Your task to perform on an android device: all mails in gmail Image 0: 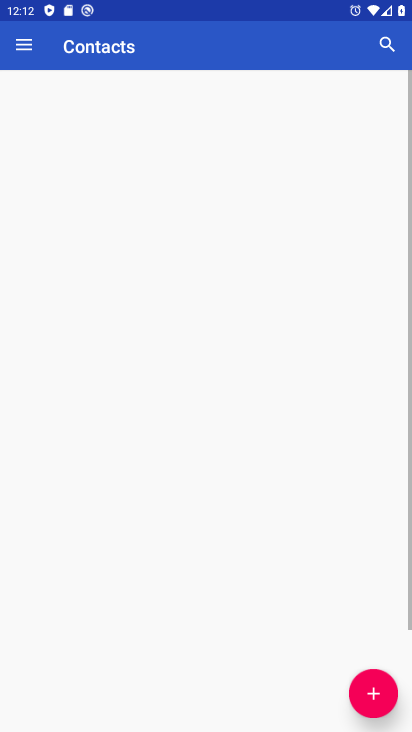
Step 0: drag from (237, 695) to (409, 68)
Your task to perform on an android device: all mails in gmail Image 1: 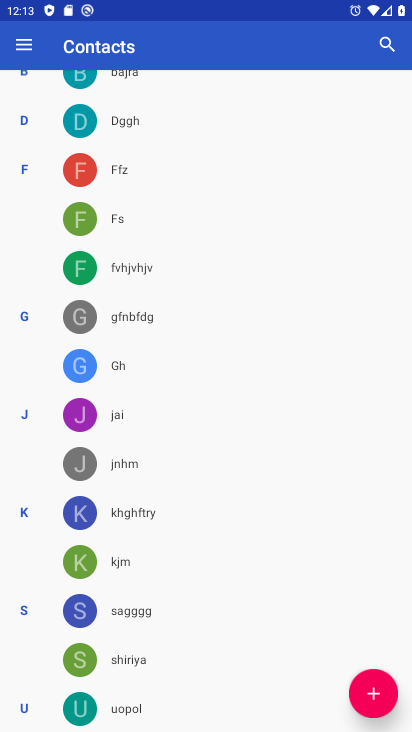
Step 1: press back button
Your task to perform on an android device: all mails in gmail Image 2: 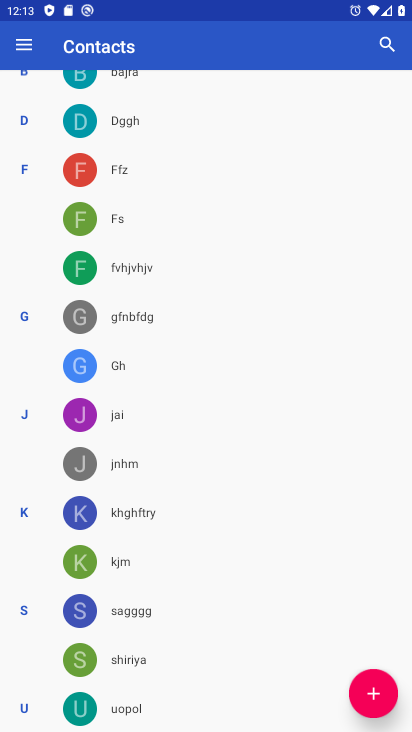
Step 2: press back button
Your task to perform on an android device: all mails in gmail Image 3: 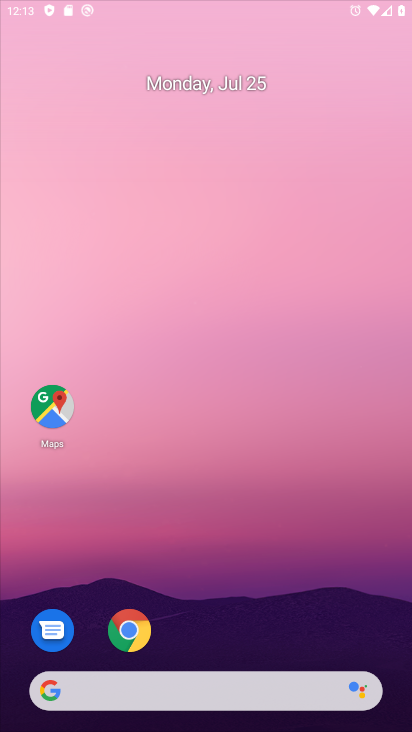
Step 3: press back button
Your task to perform on an android device: all mails in gmail Image 4: 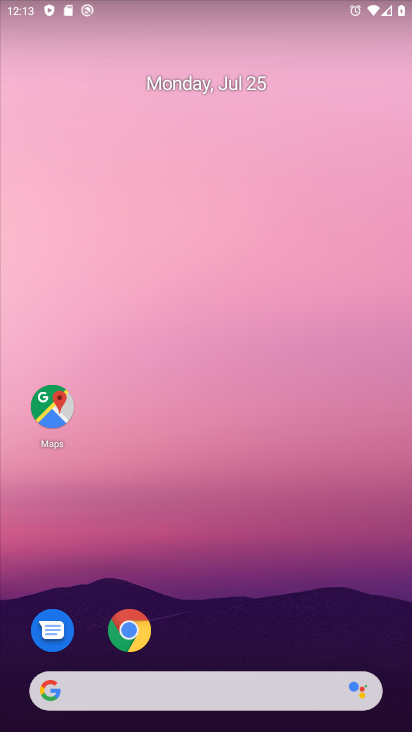
Step 4: drag from (256, 545) to (247, 102)
Your task to perform on an android device: all mails in gmail Image 5: 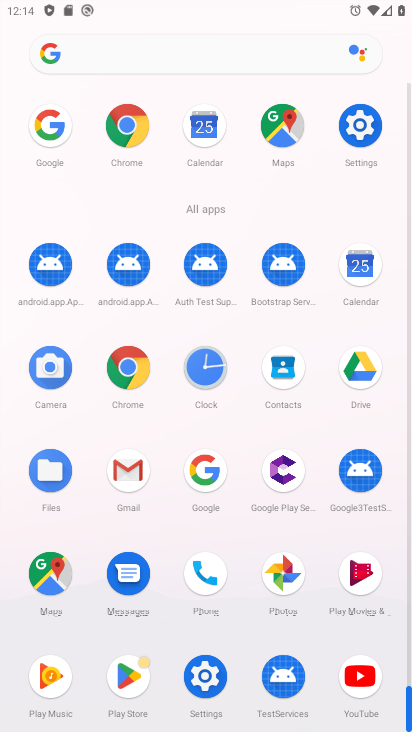
Step 5: click (141, 475)
Your task to perform on an android device: all mails in gmail Image 6: 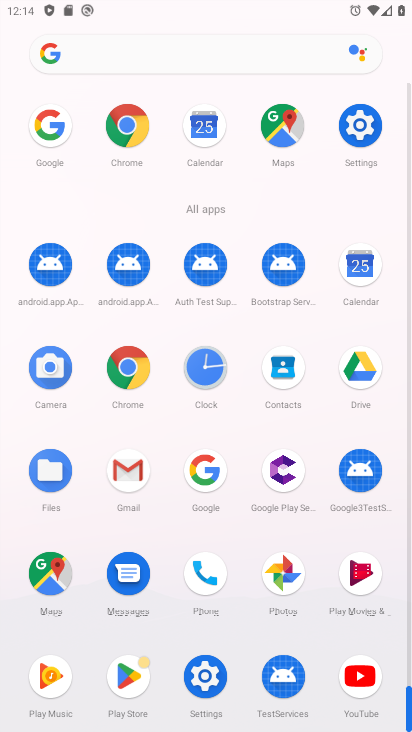
Step 6: click (129, 459)
Your task to perform on an android device: all mails in gmail Image 7: 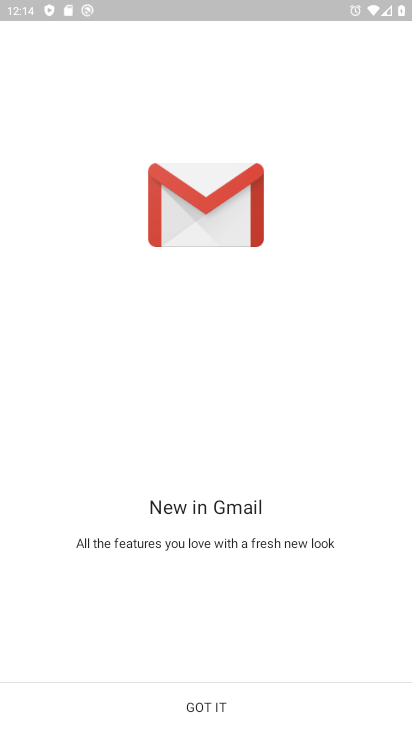
Step 7: click (209, 711)
Your task to perform on an android device: all mails in gmail Image 8: 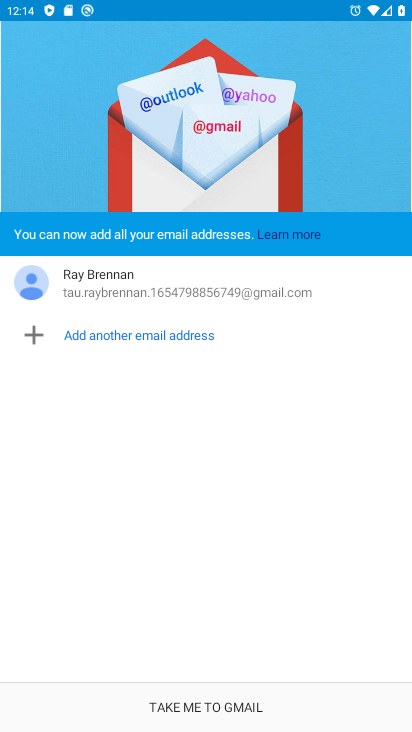
Step 8: click (198, 705)
Your task to perform on an android device: all mails in gmail Image 9: 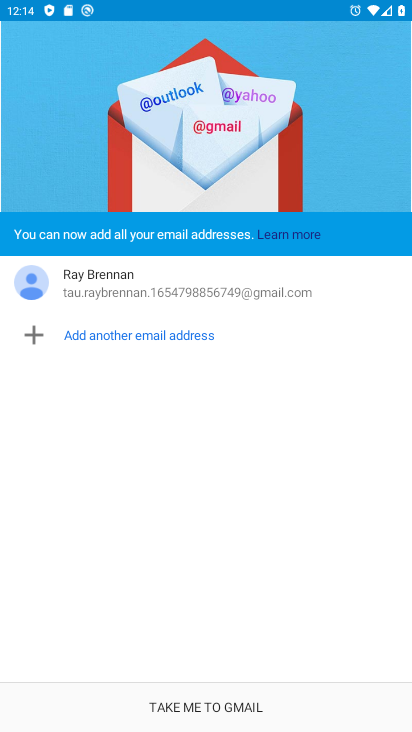
Step 9: click (199, 706)
Your task to perform on an android device: all mails in gmail Image 10: 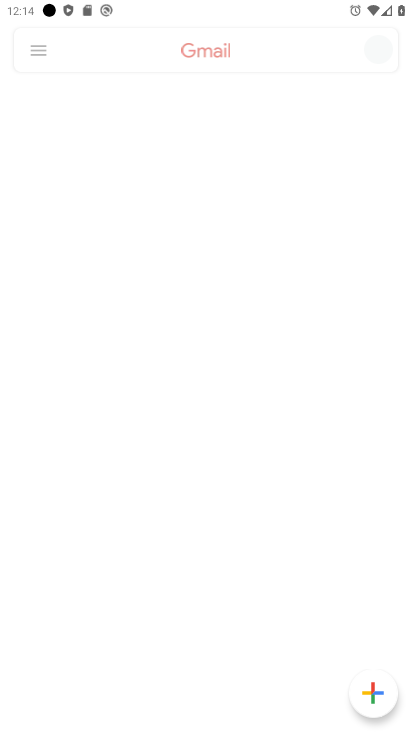
Step 10: click (207, 708)
Your task to perform on an android device: all mails in gmail Image 11: 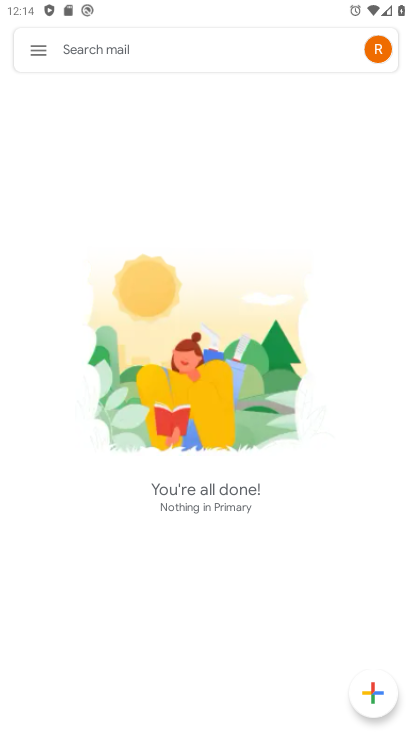
Step 11: click (36, 51)
Your task to perform on an android device: all mails in gmail Image 12: 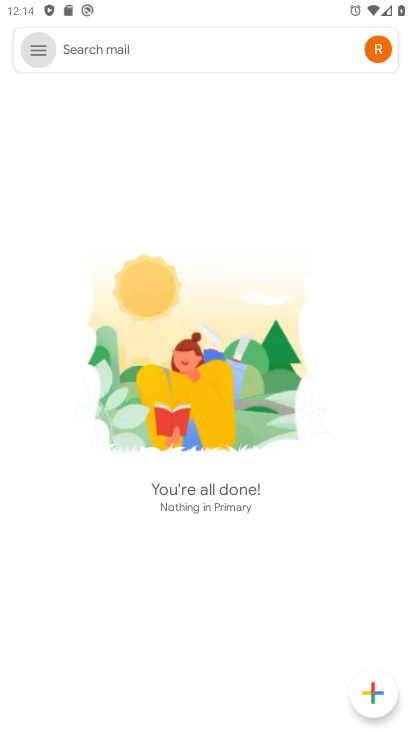
Step 12: click (35, 51)
Your task to perform on an android device: all mails in gmail Image 13: 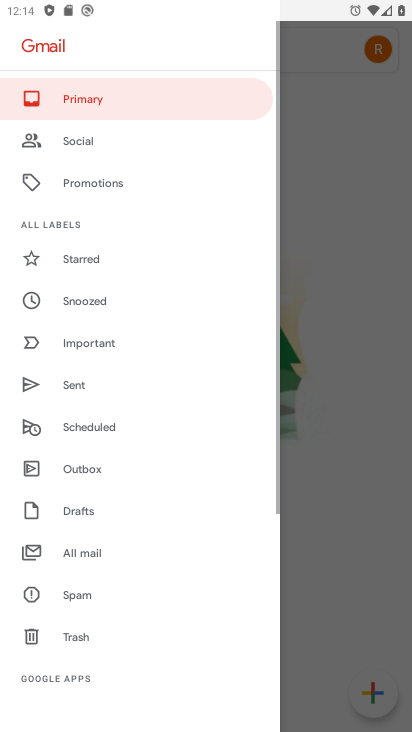
Step 13: drag from (35, 51) to (80, 542)
Your task to perform on an android device: all mails in gmail Image 14: 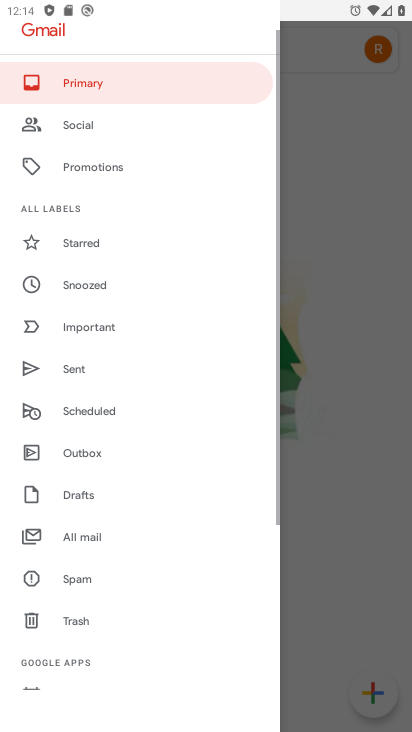
Step 14: click (80, 542)
Your task to perform on an android device: all mails in gmail Image 15: 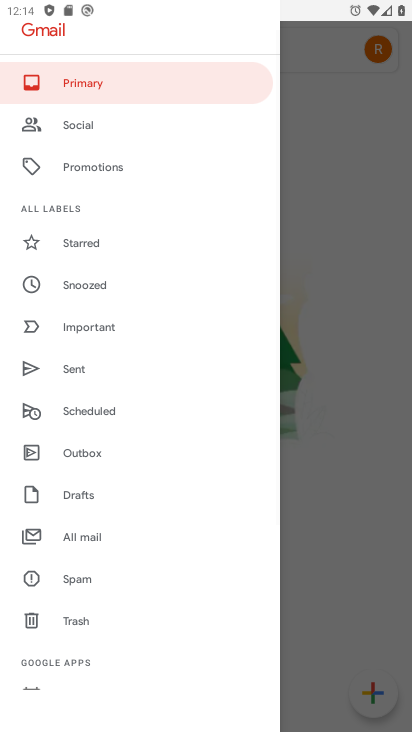
Step 15: click (80, 541)
Your task to perform on an android device: all mails in gmail Image 16: 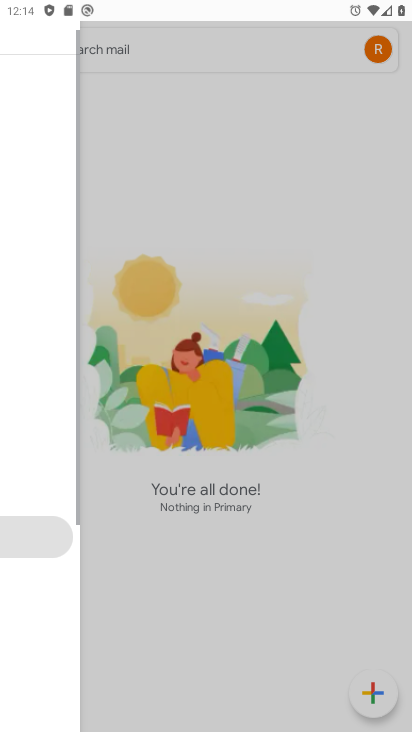
Step 16: click (92, 526)
Your task to perform on an android device: all mails in gmail Image 17: 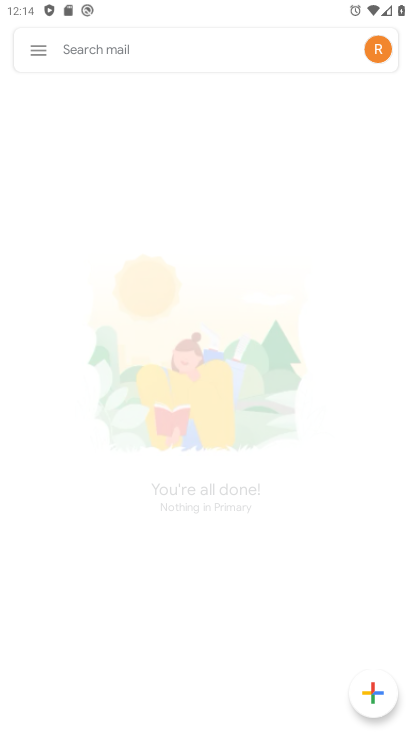
Step 17: click (91, 530)
Your task to perform on an android device: all mails in gmail Image 18: 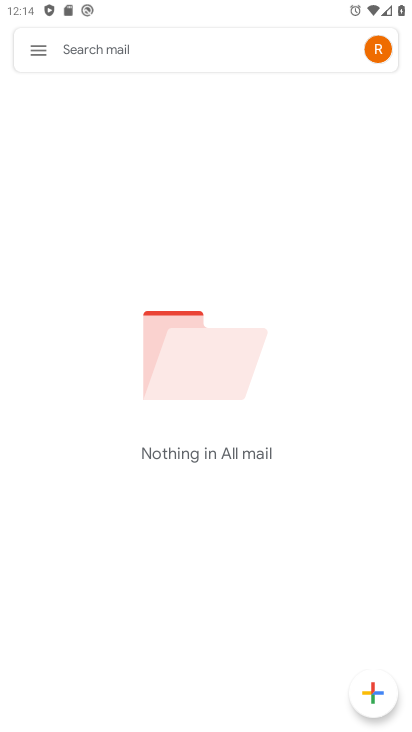
Step 18: task complete